Your task to perform on an android device: open app "TextNow: Call + Text Unlimited" (install if not already installed) and go to login screen Image 0: 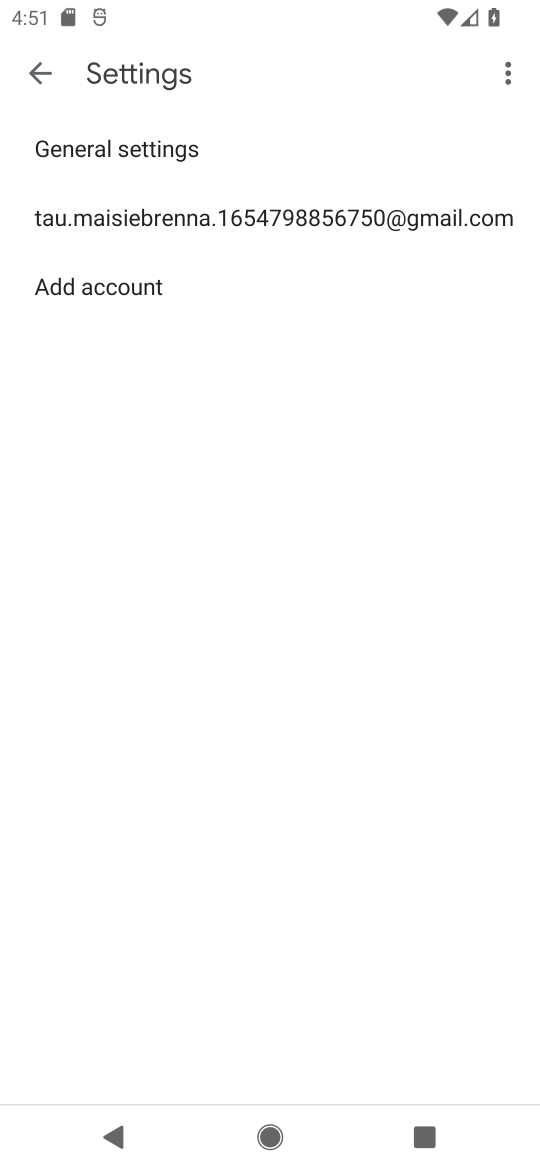
Step 0: press home button
Your task to perform on an android device: open app "TextNow: Call + Text Unlimited" (install if not already installed) and go to login screen Image 1: 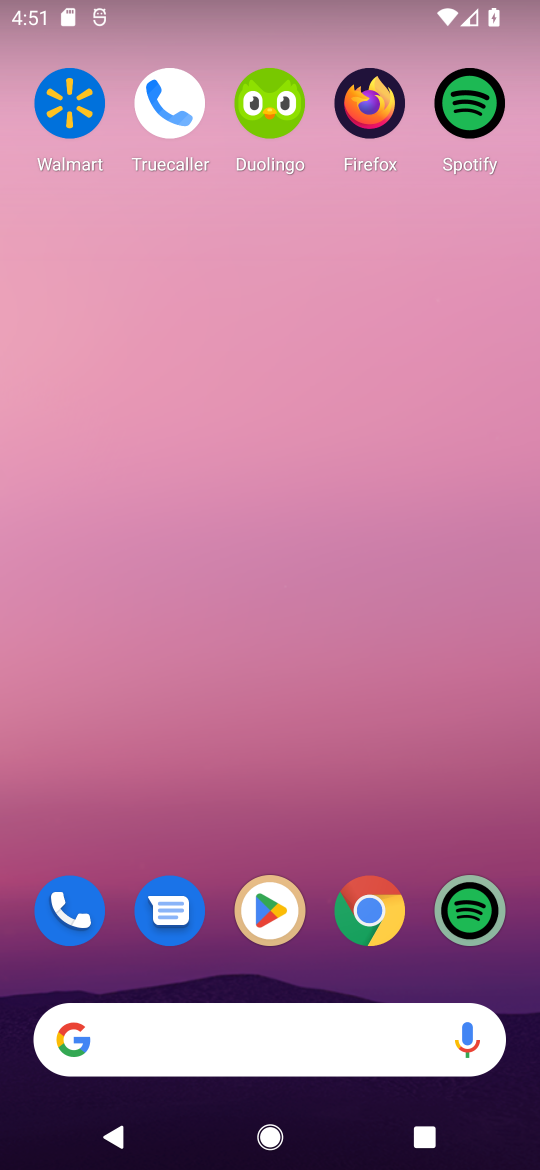
Step 1: drag from (288, 1011) to (244, 278)
Your task to perform on an android device: open app "TextNow: Call + Text Unlimited" (install if not already installed) and go to login screen Image 2: 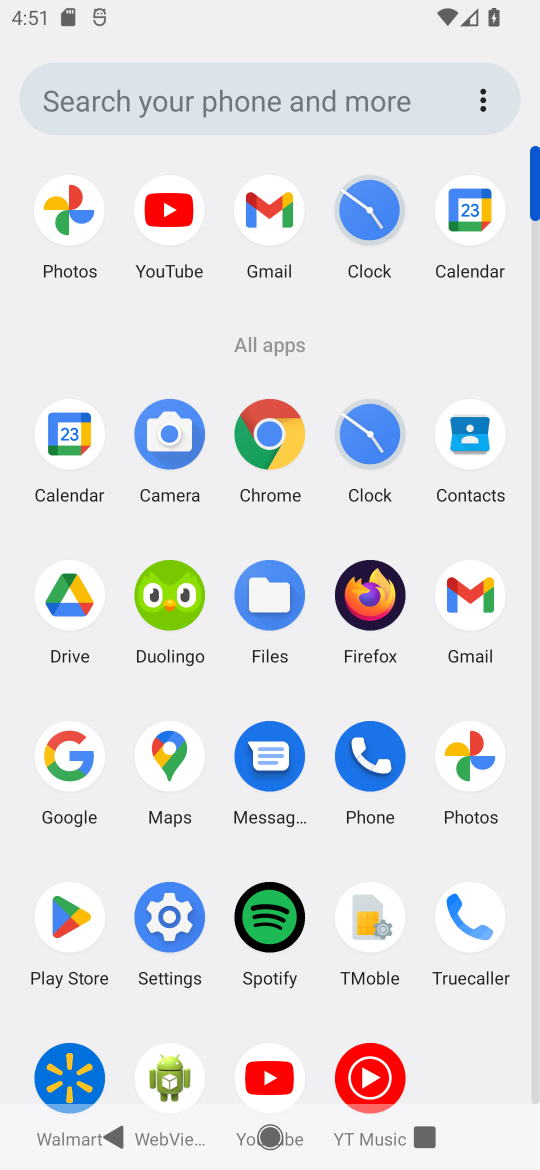
Step 2: click (64, 926)
Your task to perform on an android device: open app "TextNow: Call + Text Unlimited" (install if not already installed) and go to login screen Image 3: 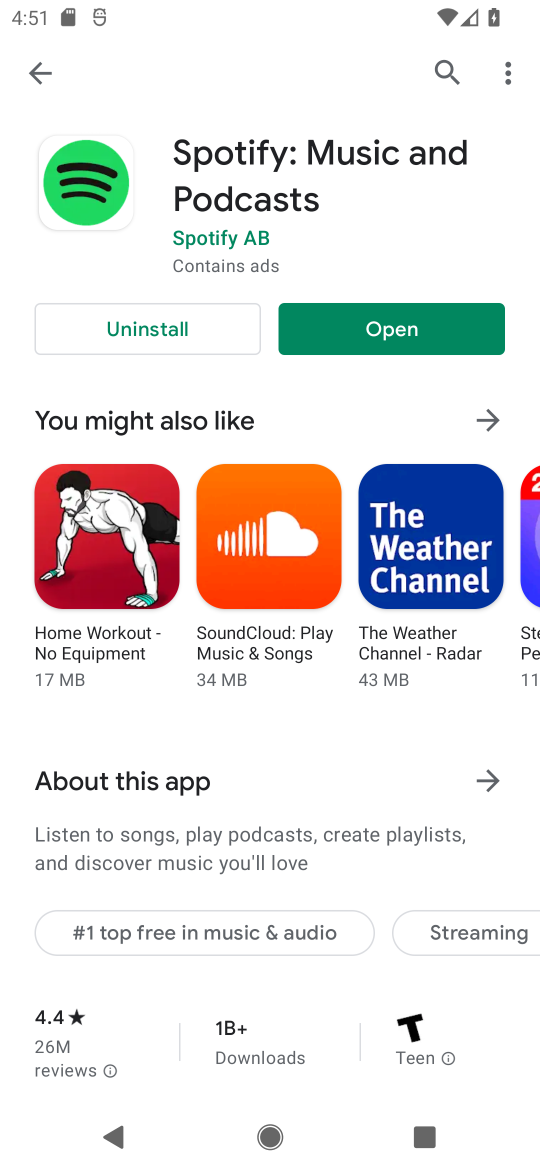
Step 3: click (446, 67)
Your task to perform on an android device: open app "TextNow: Call + Text Unlimited" (install if not already installed) and go to login screen Image 4: 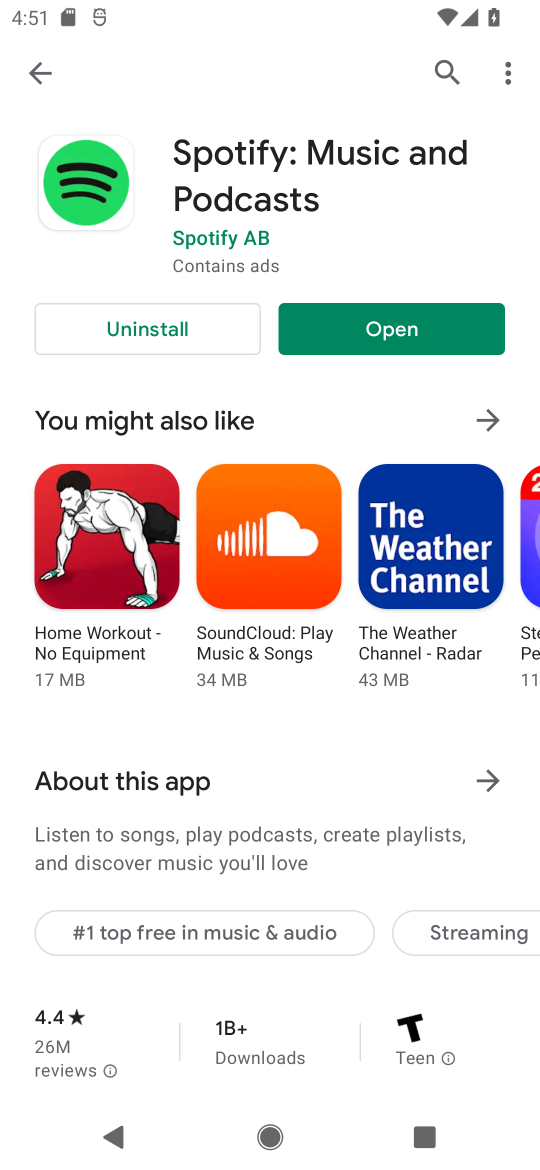
Step 4: click (445, 67)
Your task to perform on an android device: open app "TextNow: Call + Text Unlimited" (install if not already installed) and go to login screen Image 5: 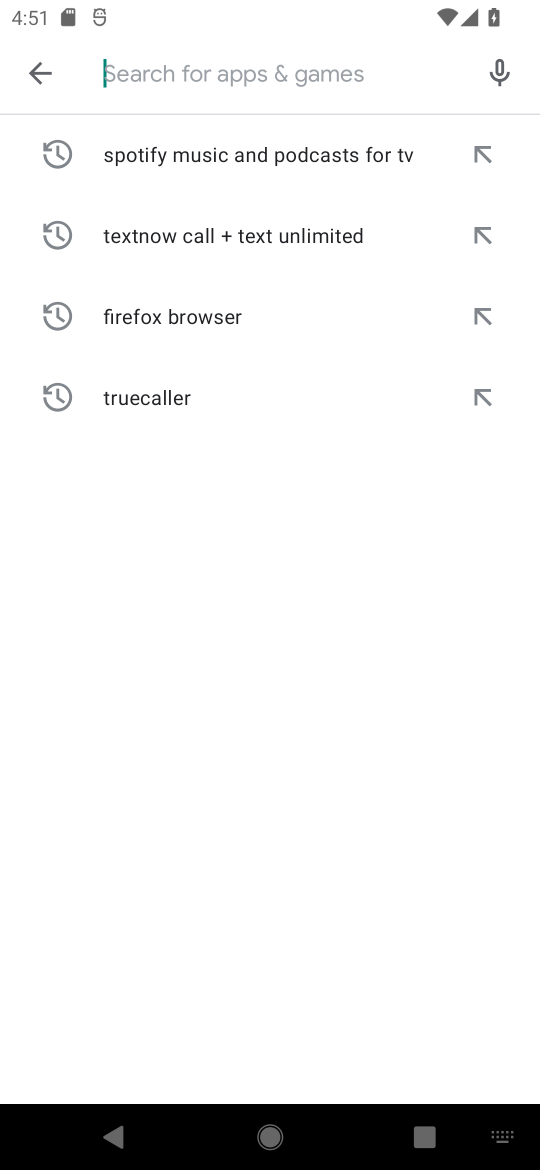
Step 5: type "TextNow: Call + Text Unlimited"
Your task to perform on an android device: open app "TextNow: Call + Text Unlimited" (install if not already installed) and go to login screen Image 6: 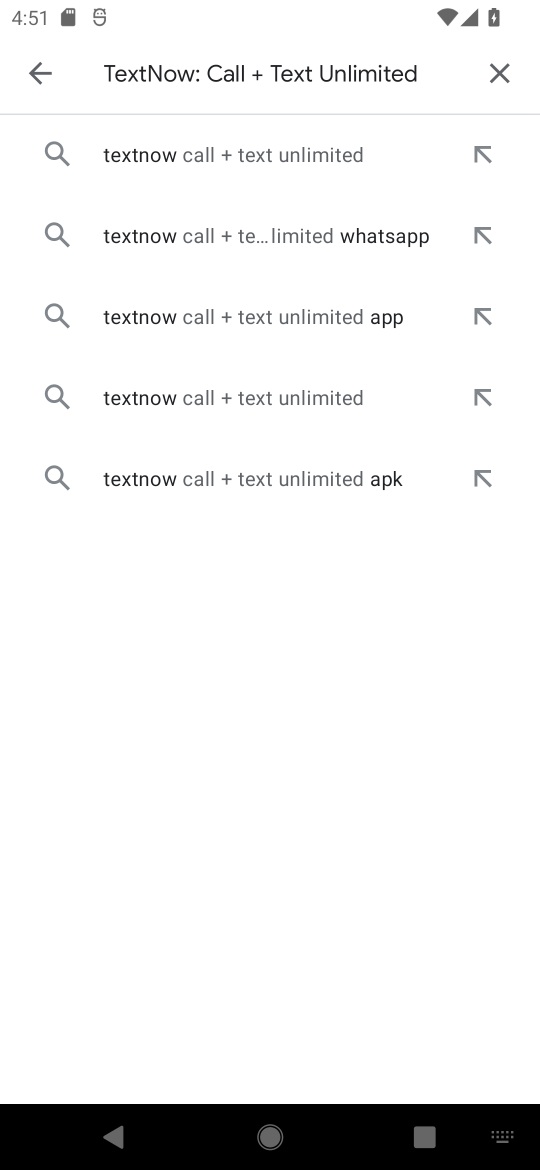
Step 6: click (243, 175)
Your task to perform on an android device: open app "TextNow: Call + Text Unlimited" (install if not already installed) and go to login screen Image 7: 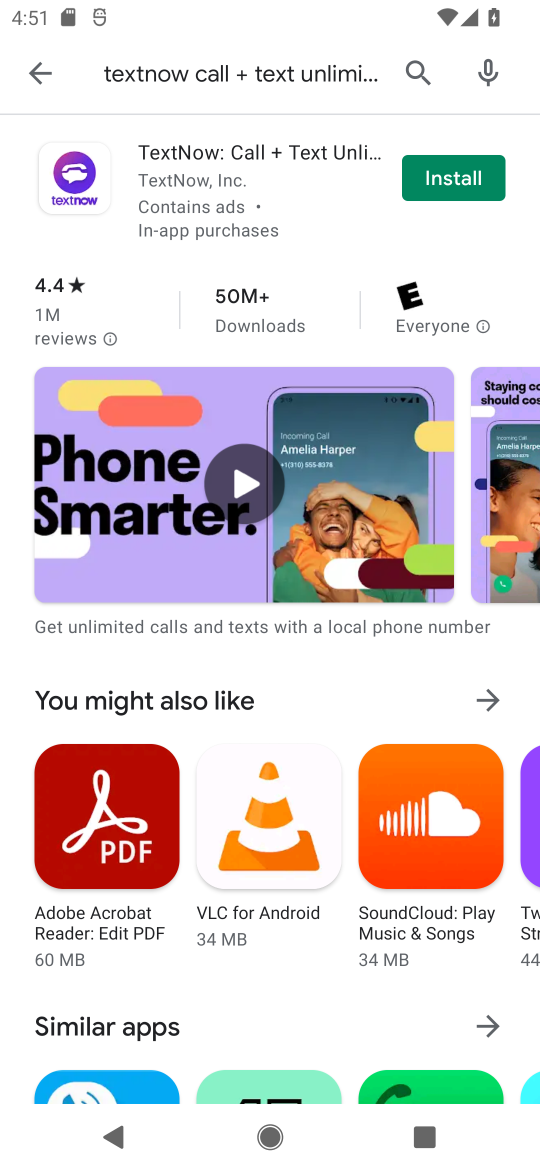
Step 7: click (416, 173)
Your task to perform on an android device: open app "TextNow: Call + Text Unlimited" (install if not already installed) and go to login screen Image 8: 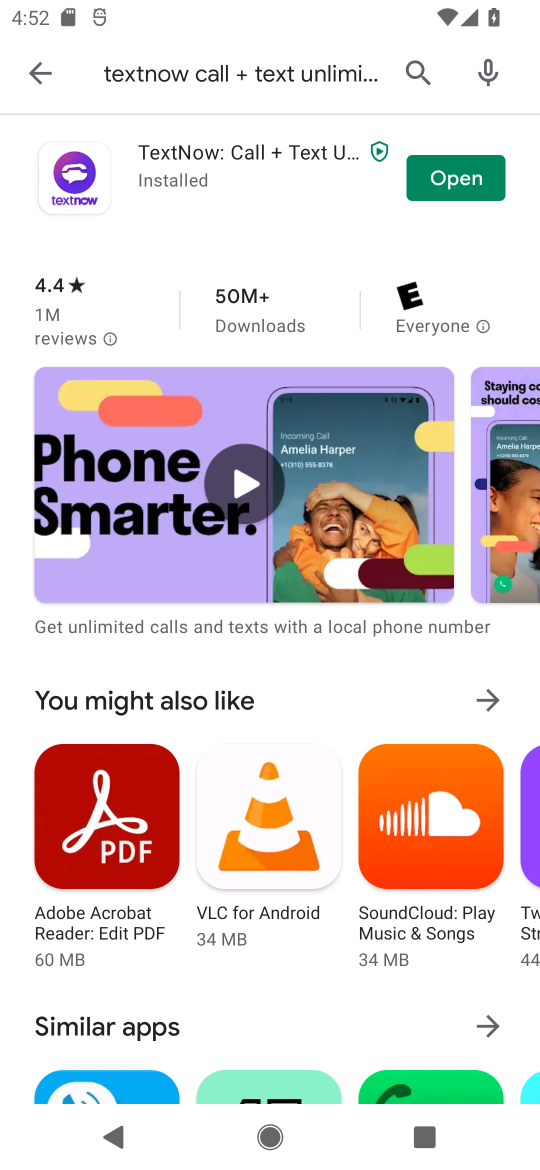
Step 8: click (439, 177)
Your task to perform on an android device: open app "TextNow: Call + Text Unlimited" (install if not already installed) and go to login screen Image 9: 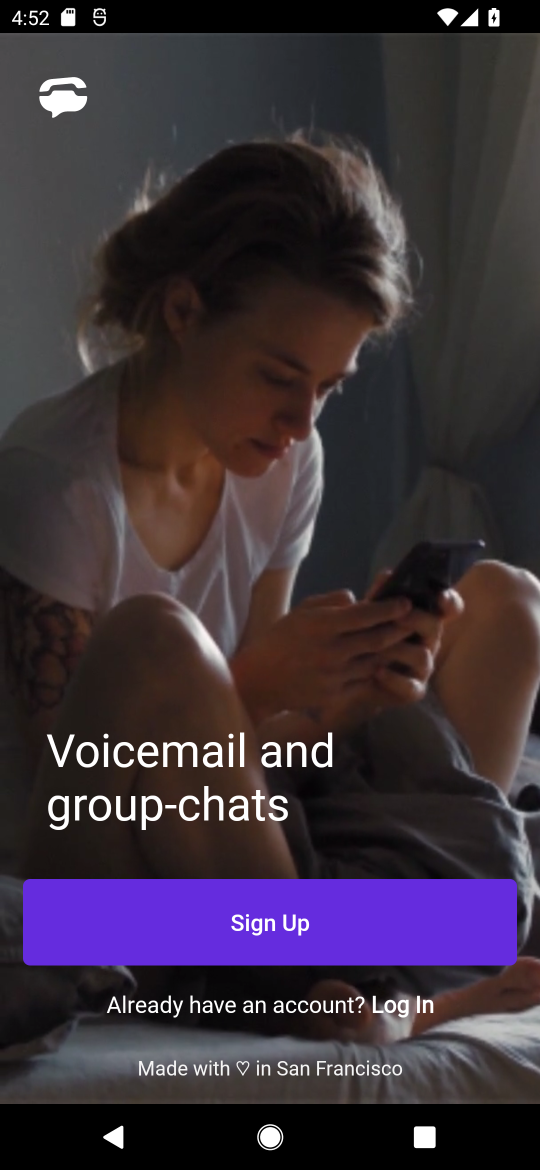
Step 9: task complete